Your task to perform on an android device: check out phone information Image 0: 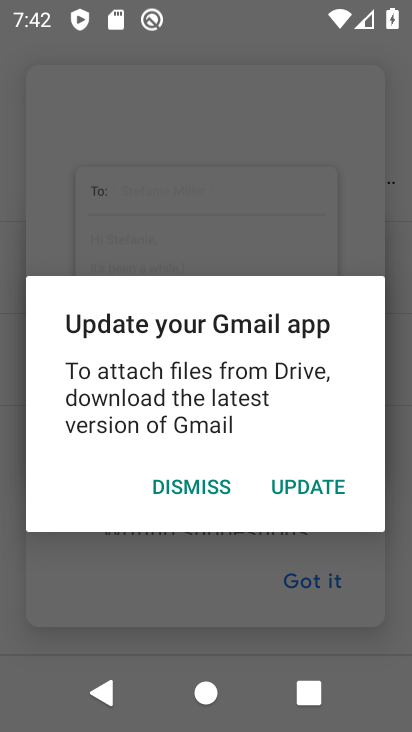
Step 0: press home button
Your task to perform on an android device: check out phone information Image 1: 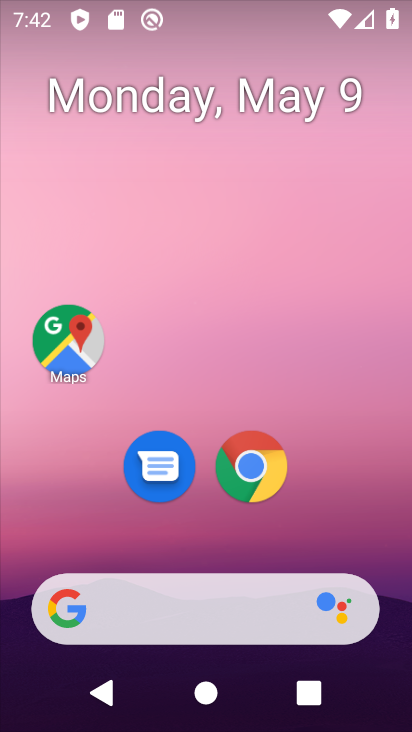
Step 1: drag from (309, 651) to (221, 147)
Your task to perform on an android device: check out phone information Image 2: 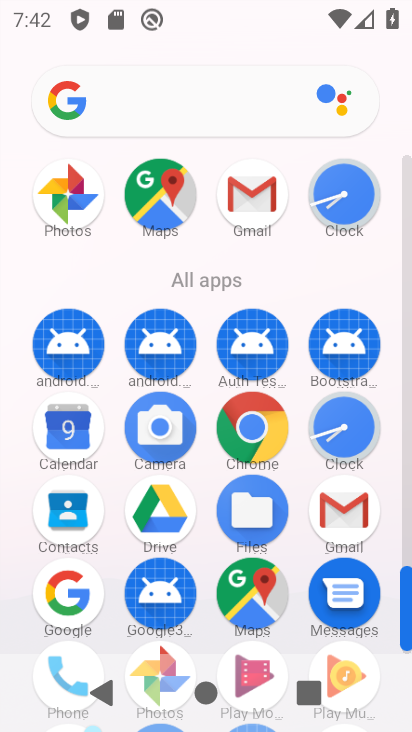
Step 2: drag from (286, 542) to (273, 122)
Your task to perform on an android device: check out phone information Image 3: 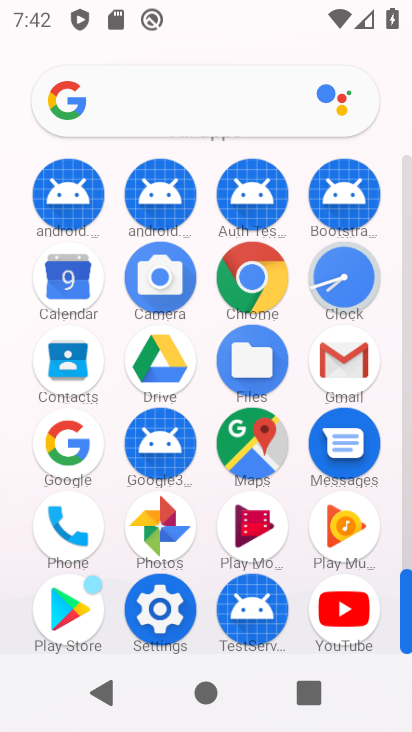
Step 3: click (180, 620)
Your task to perform on an android device: check out phone information Image 4: 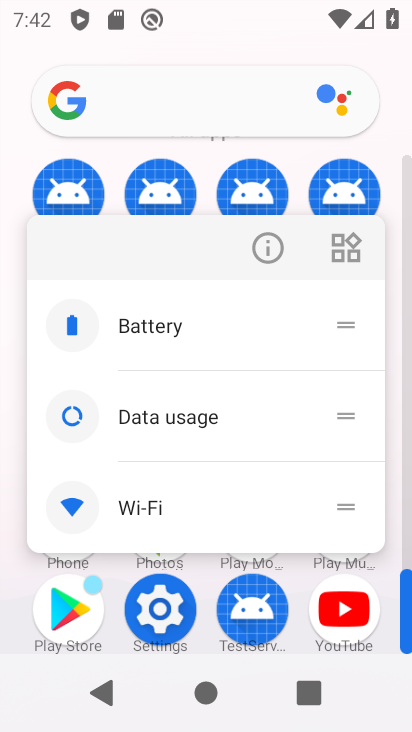
Step 4: click (181, 612)
Your task to perform on an android device: check out phone information Image 5: 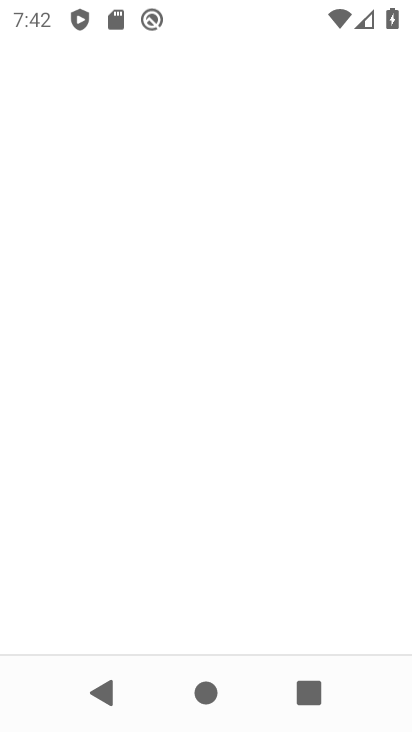
Step 5: click (183, 612)
Your task to perform on an android device: check out phone information Image 6: 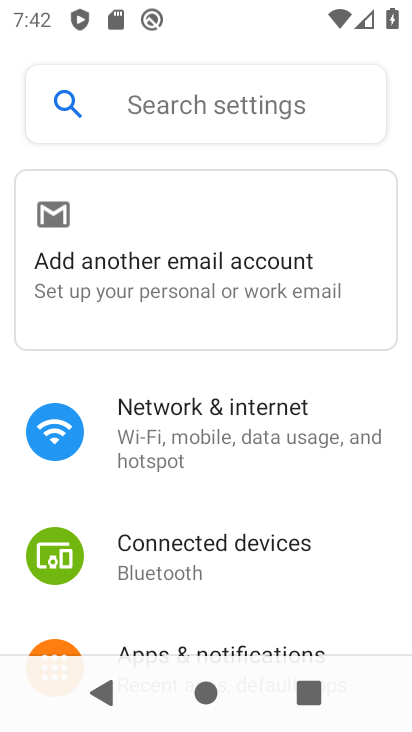
Step 6: drag from (227, 577) to (277, 49)
Your task to perform on an android device: check out phone information Image 7: 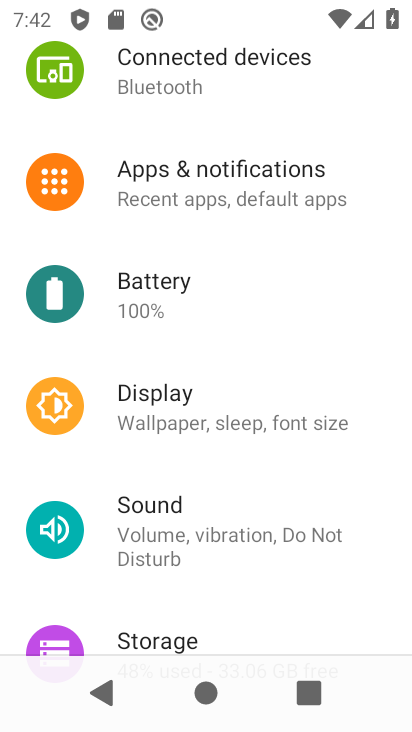
Step 7: drag from (284, 513) to (343, 5)
Your task to perform on an android device: check out phone information Image 8: 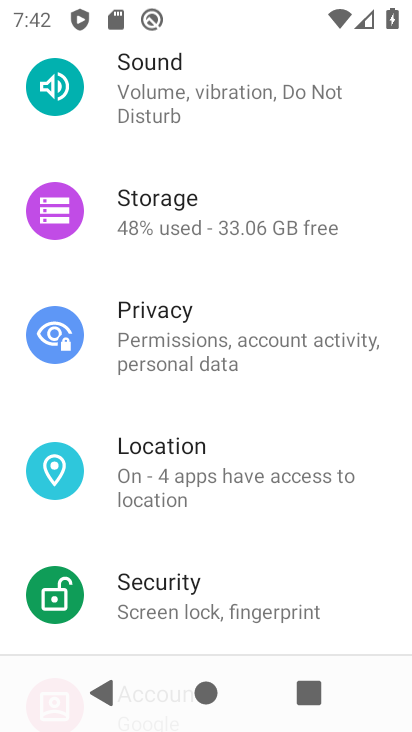
Step 8: drag from (273, 539) to (283, 4)
Your task to perform on an android device: check out phone information Image 9: 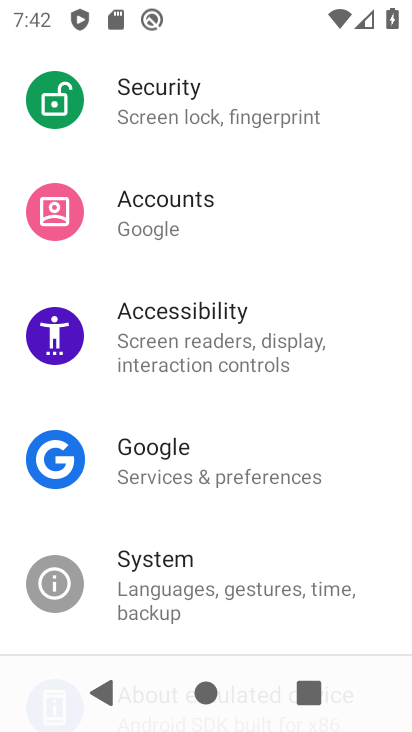
Step 9: drag from (281, 603) to (320, 123)
Your task to perform on an android device: check out phone information Image 10: 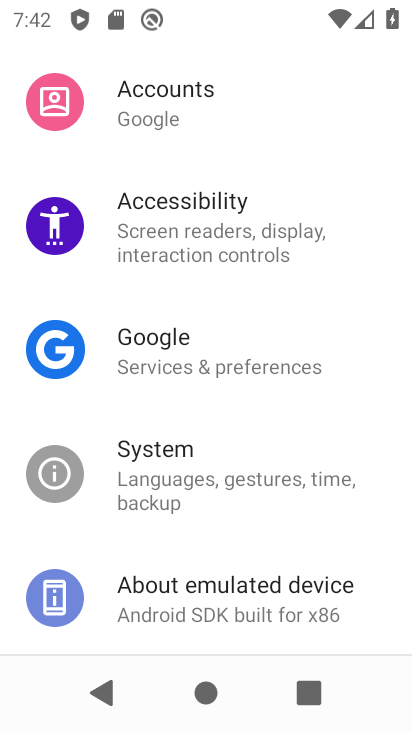
Step 10: click (290, 596)
Your task to perform on an android device: check out phone information Image 11: 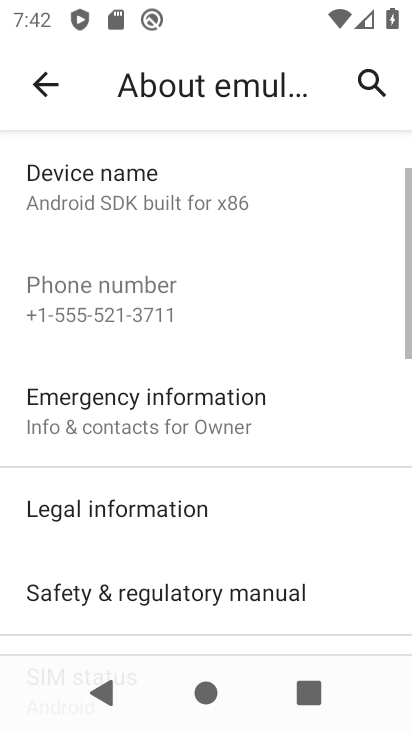
Step 11: task complete